Your task to perform on an android device: toggle airplane mode Image 0: 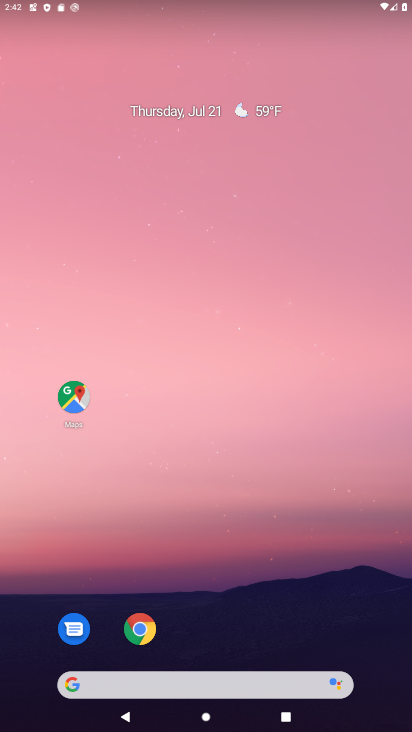
Step 0: drag from (226, 725) to (225, 211)
Your task to perform on an android device: toggle airplane mode Image 1: 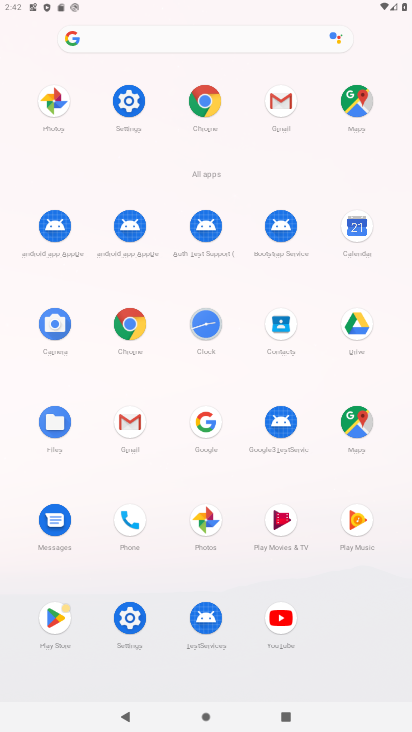
Step 1: click (129, 100)
Your task to perform on an android device: toggle airplane mode Image 2: 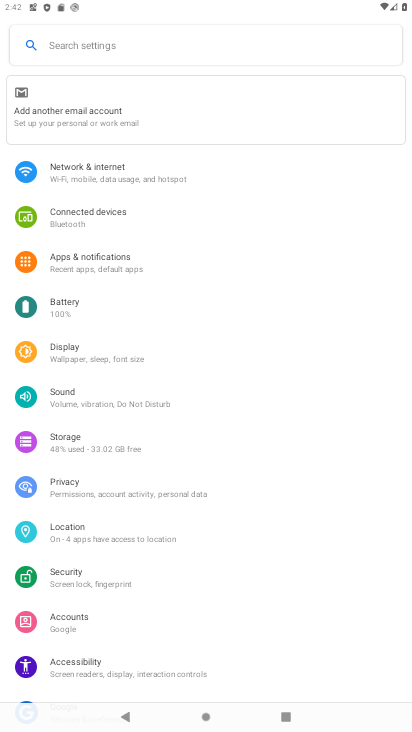
Step 2: click (90, 168)
Your task to perform on an android device: toggle airplane mode Image 3: 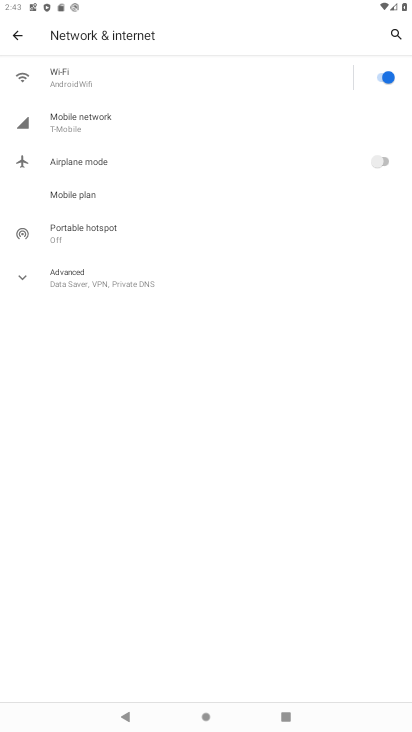
Step 3: click (385, 156)
Your task to perform on an android device: toggle airplane mode Image 4: 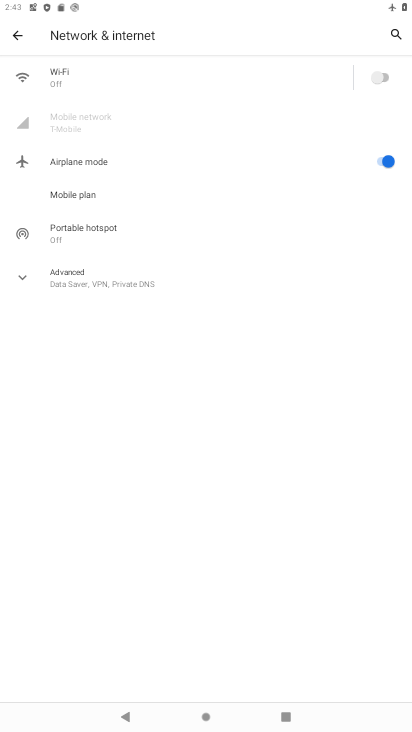
Step 4: task complete